Your task to perform on an android device: check storage Image 0: 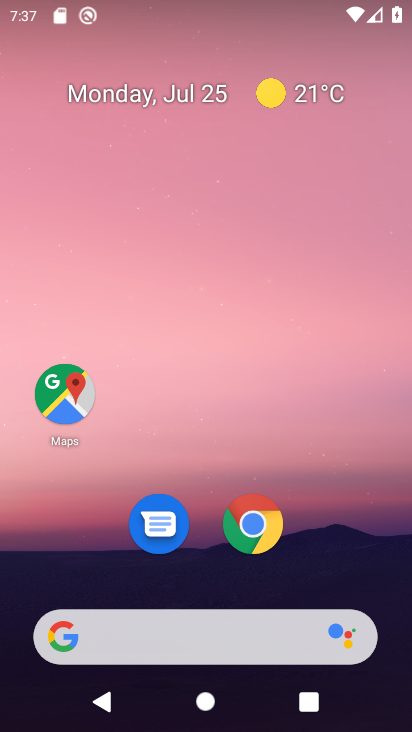
Step 0: drag from (181, 635) to (249, 18)
Your task to perform on an android device: check storage Image 1: 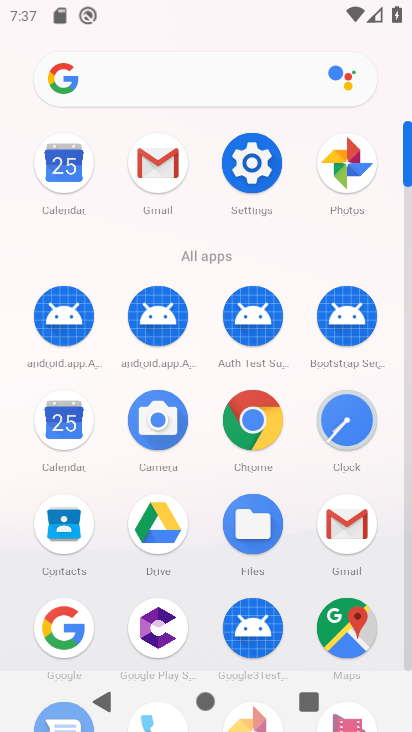
Step 1: click (247, 166)
Your task to perform on an android device: check storage Image 2: 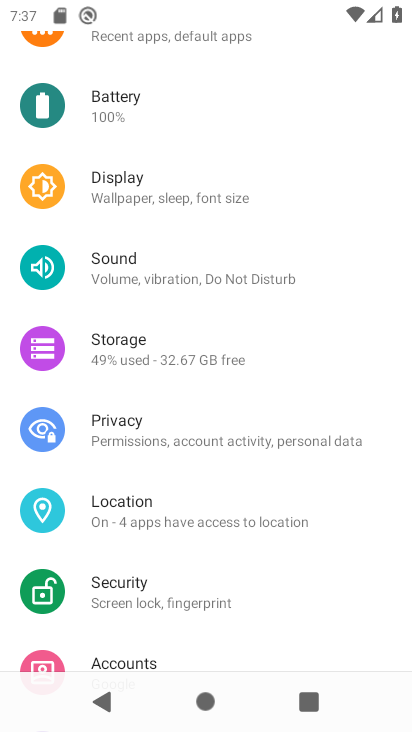
Step 2: click (172, 357)
Your task to perform on an android device: check storage Image 3: 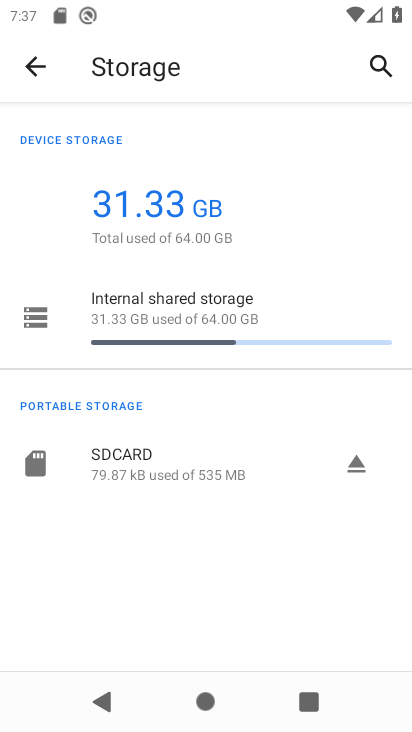
Step 3: task complete